Your task to perform on an android device: Open the stopwatch Image 0: 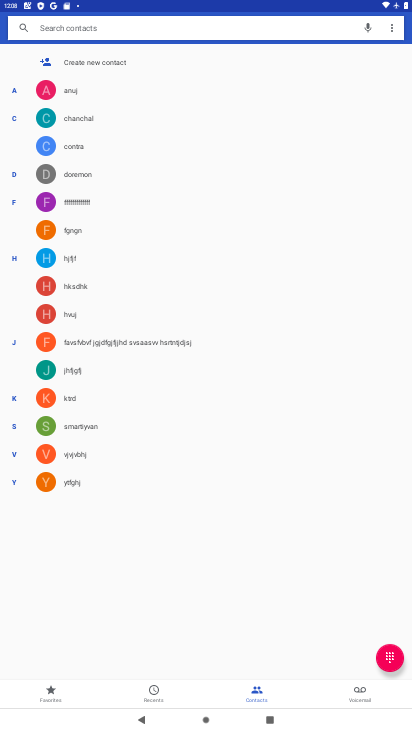
Step 0: press home button
Your task to perform on an android device: Open the stopwatch Image 1: 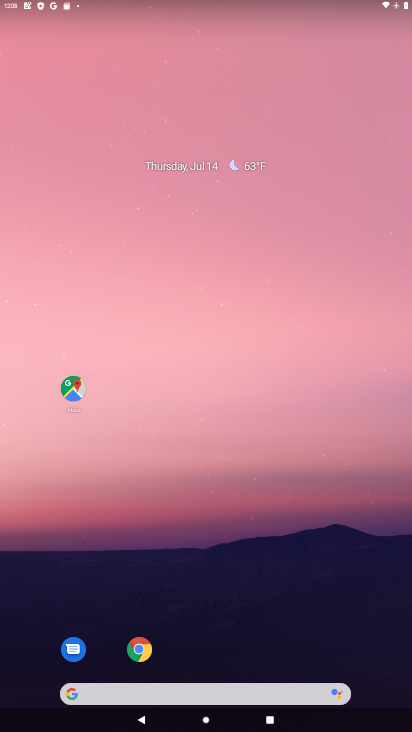
Step 1: drag from (164, 563) to (174, 154)
Your task to perform on an android device: Open the stopwatch Image 2: 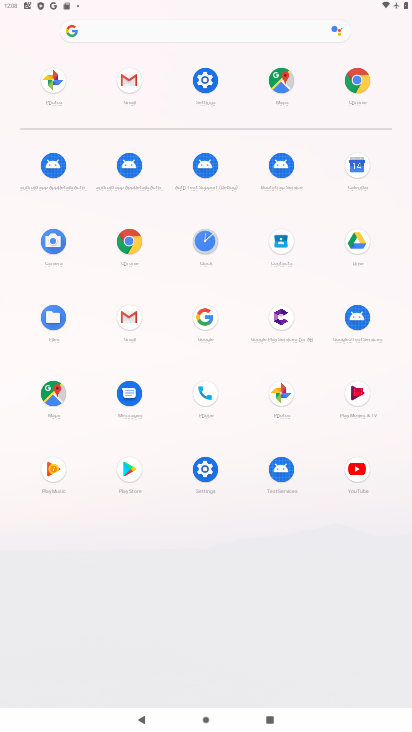
Step 2: click (202, 230)
Your task to perform on an android device: Open the stopwatch Image 3: 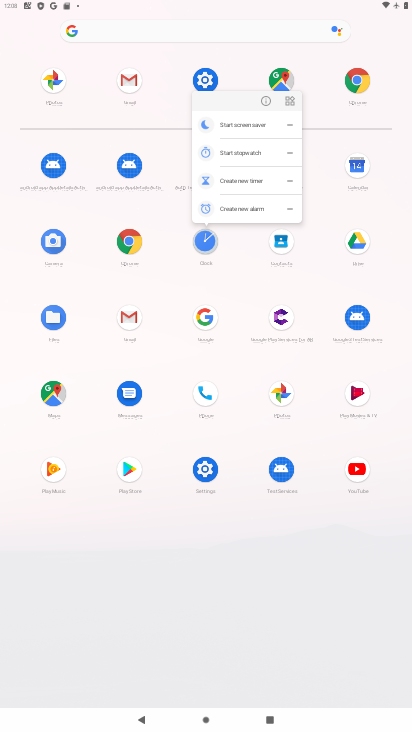
Step 3: click (215, 229)
Your task to perform on an android device: Open the stopwatch Image 4: 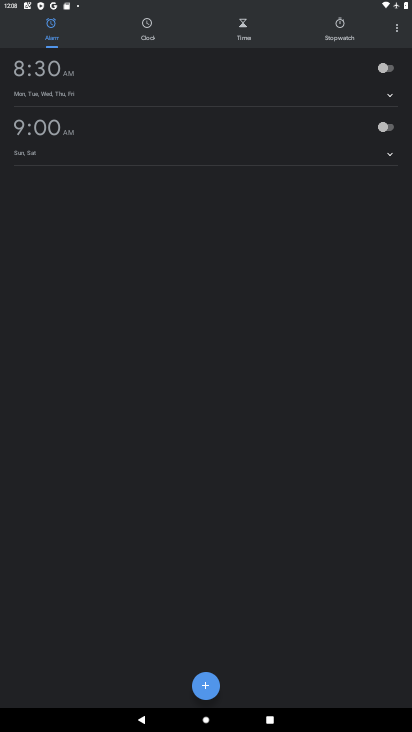
Step 4: click (345, 28)
Your task to perform on an android device: Open the stopwatch Image 5: 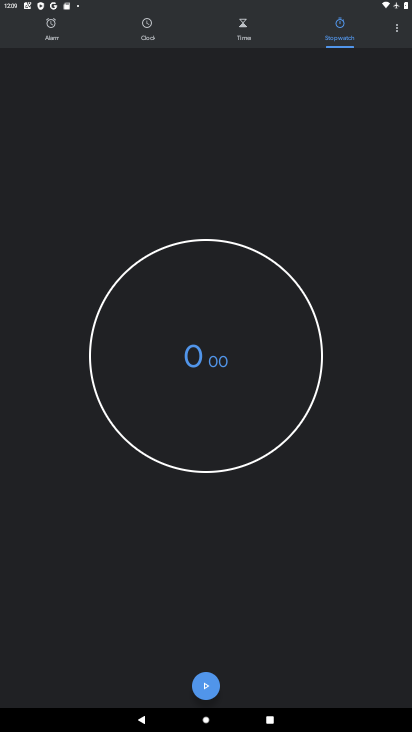
Step 5: task complete